Your task to perform on an android device: Show me recent news Image 0: 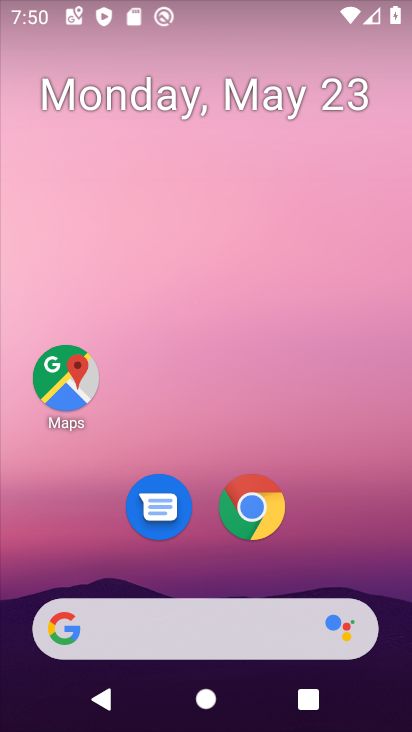
Step 0: drag from (329, 549) to (331, 168)
Your task to perform on an android device: Show me recent news Image 1: 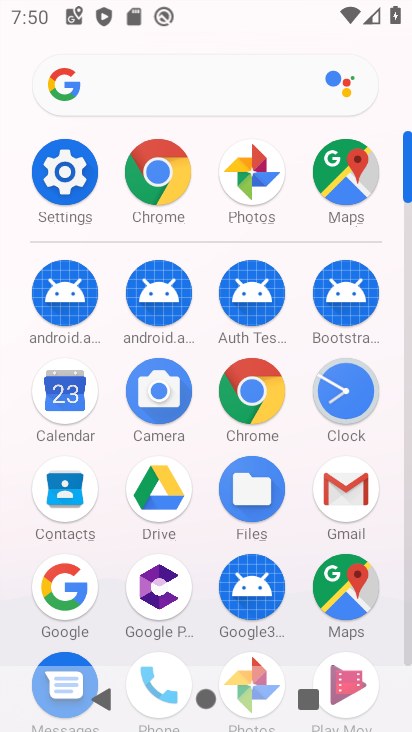
Step 1: click (245, 384)
Your task to perform on an android device: Show me recent news Image 2: 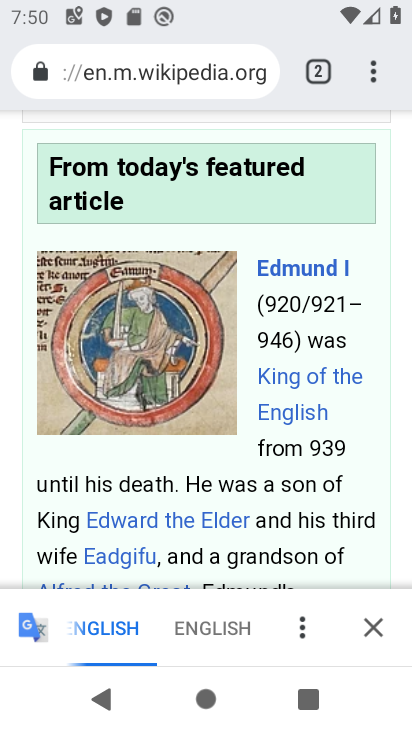
Step 2: click (332, 83)
Your task to perform on an android device: Show me recent news Image 3: 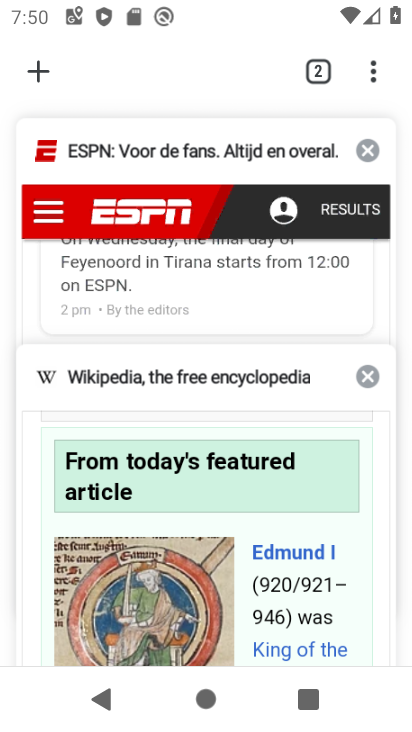
Step 3: click (29, 76)
Your task to perform on an android device: Show me recent news Image 4: 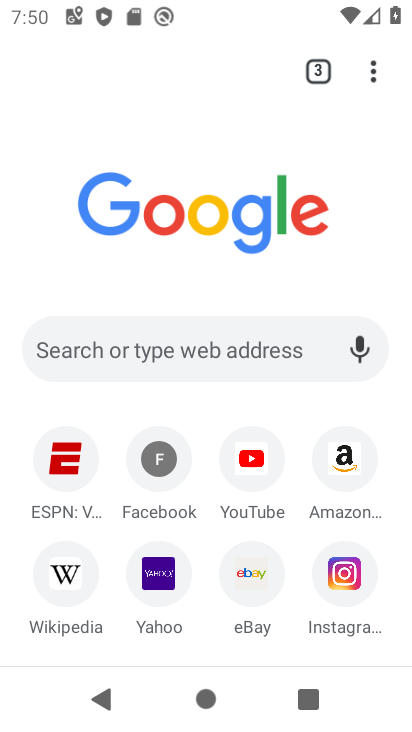
Step 4: click (208, 352)
Your task to perform on an android device: Show me recent news Image 5: 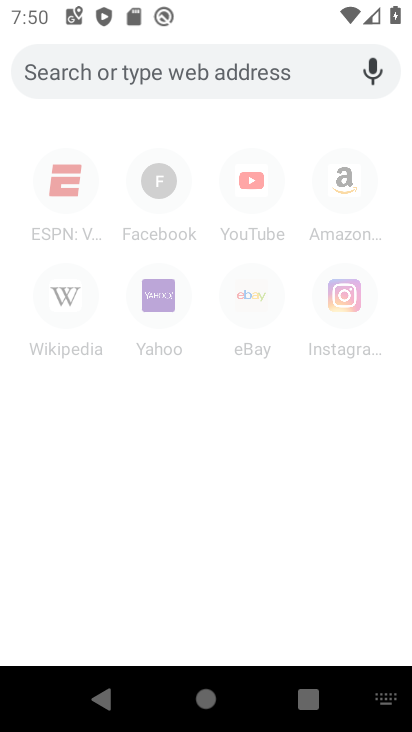
Step 5: type "recent news "
Your task to perform on an android device: Show me recent news Image 6: 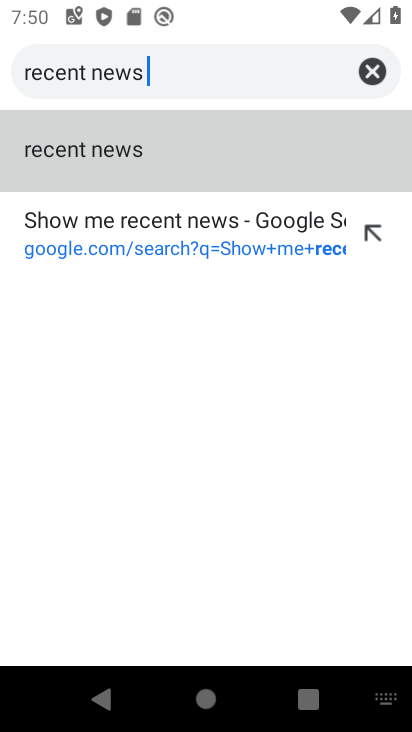
Step 6: click (108, 143)
Your task to perform on an android device: Show me recent news Image 7: 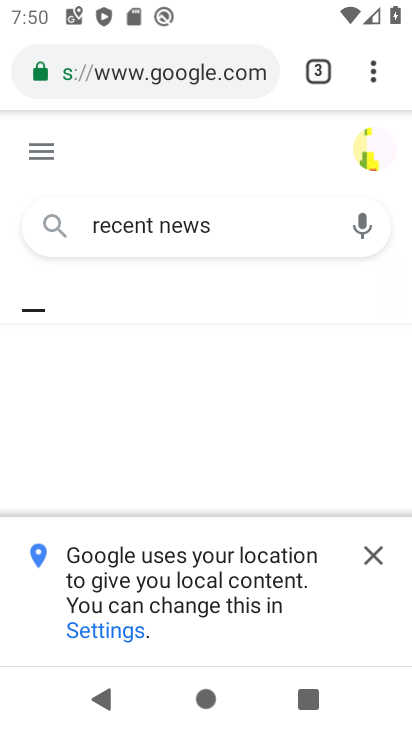
Step 7: click (356, 556)
Your task to perform on an android device: Show me recent news Image 8: 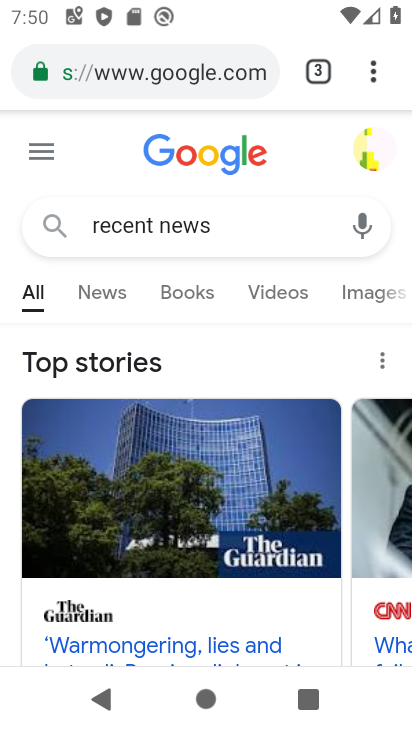
Step 8: task complete